Your task to perform on an android device: Go to privacy settings Image 0: 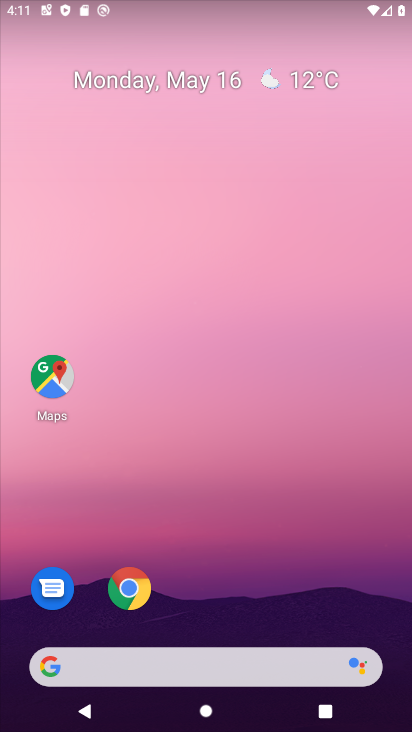
Step 0: drag from (261, 602) to (295, 34)
Your task to perform on an android device: Go to privacy settings Image 1: 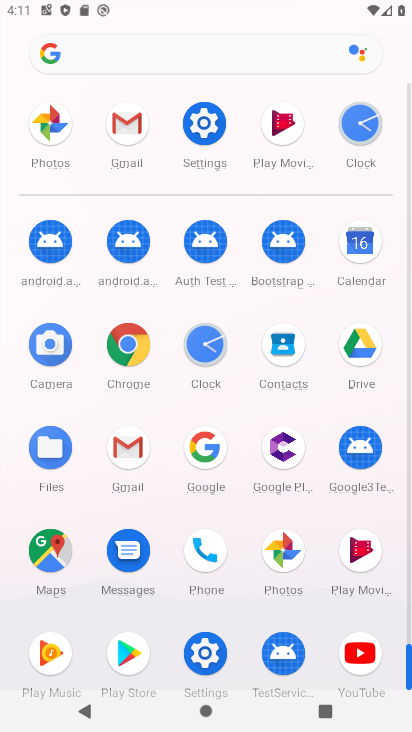
Step 1: click (206, 125)
Your task to perform on an android device: Go to privacy settings Image 2: 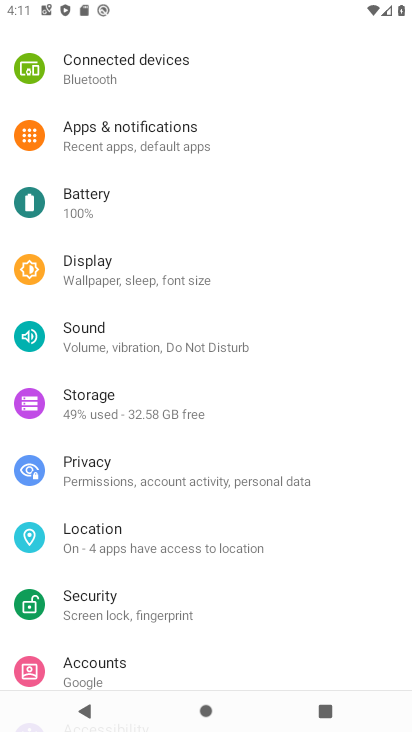
Step 2: click (167, 468)
Your task to perform on an android device: Go to privacy settings Image 3: 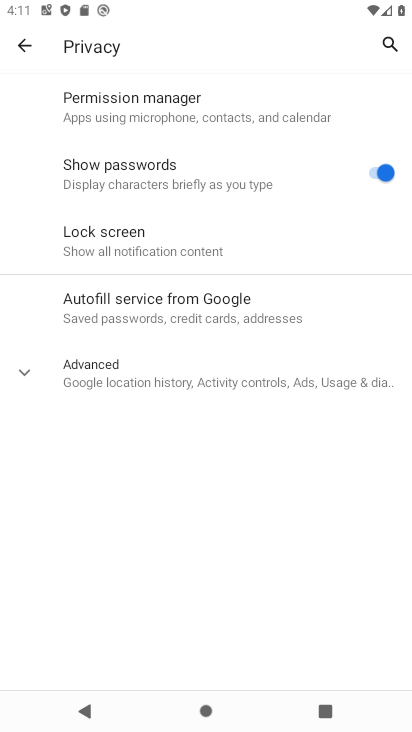
Step 3: task complete